Your task to perform on an android device: Open internet settings Image 0: 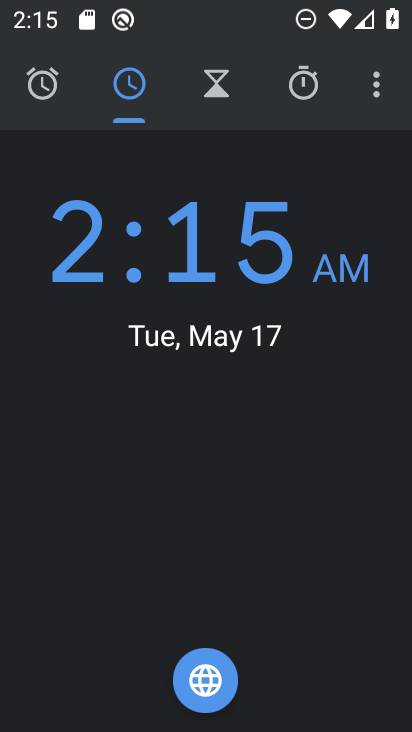
Step 0: press home button
Your task to perform on an android device: Open internet settings Image 1: 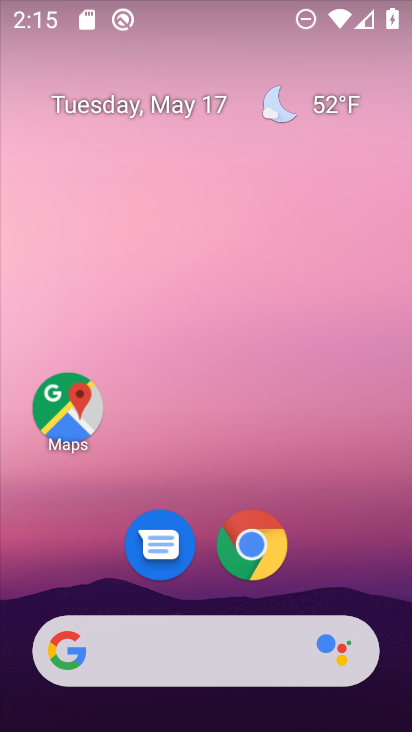
Step 1: drag from (348, 567) to (381, 156)
Your task to perform on an android device: Open internet settings Image 2: 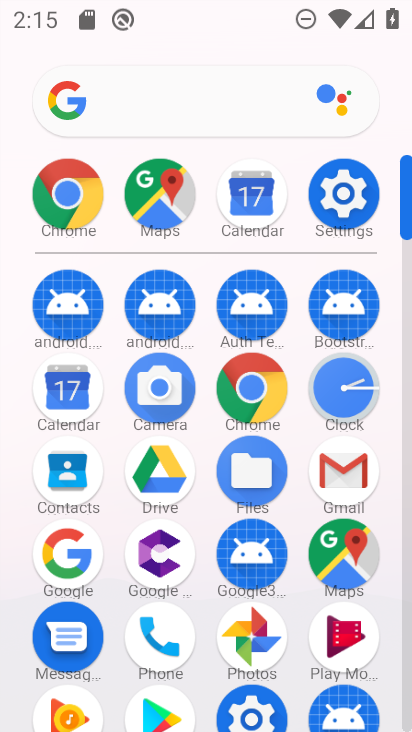
Step 2: click (331, 211)
Your task to perform on an android device: Open internet settings Image 3: 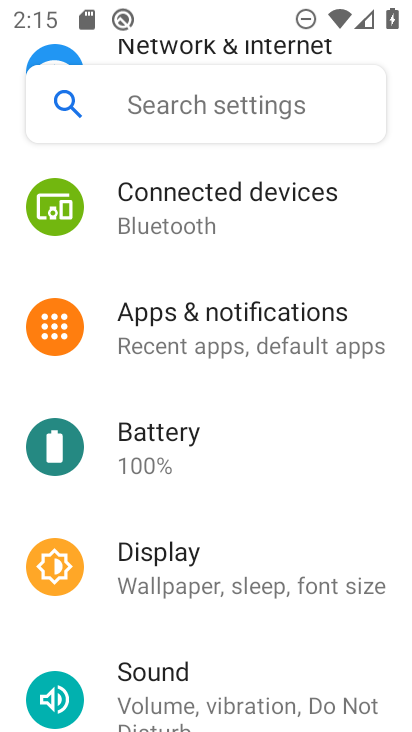
Step 3: drag from (281, 482) to (300, 397)
Your task to perform on an android device: Open internet settings Image 4: 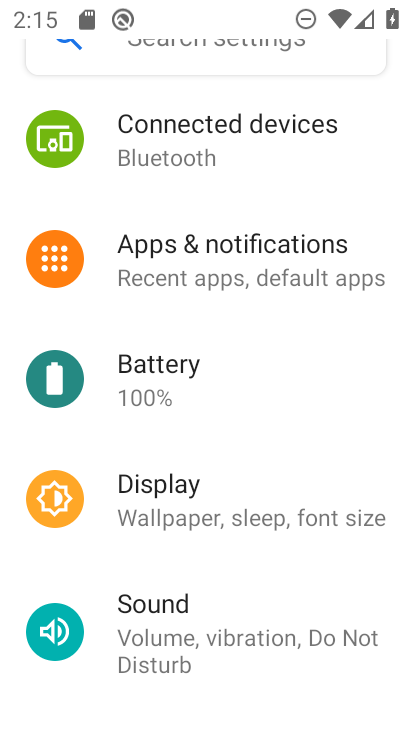
Step 4: drag from (321, 576) to (333, 470)
Your task to perform on an android device: Open internet settings Image 5: 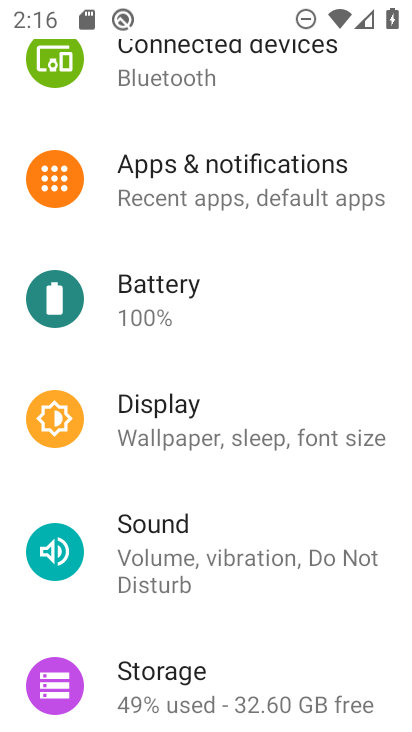
Step 5: drag from (314, 622) to (323, 574)
Your task to perform on an android device: Open internet settings Image 6: 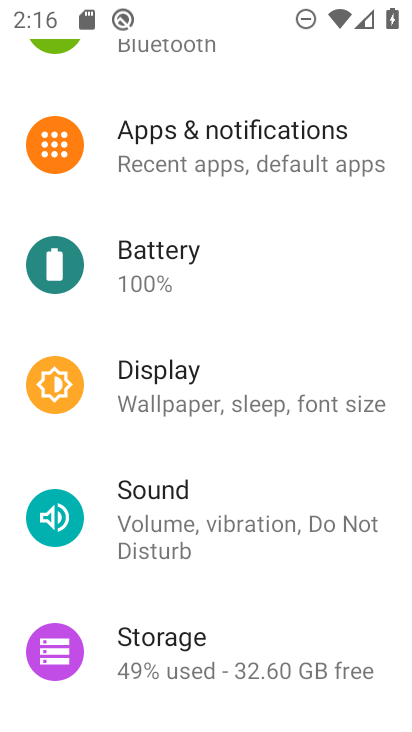
Step 6: drag from (322, 635) to (321, 535)
Your task to perform on an android device: Open internet settings Image 7: 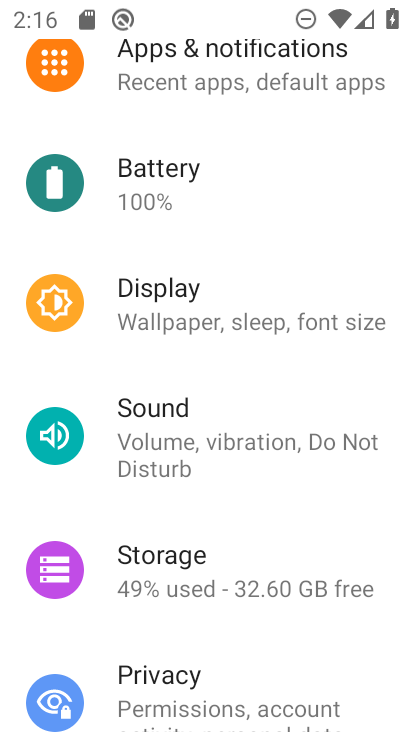
Step 7: drag from (304, 664) to (325, 552)
Your task to perform on an android device: Open internet settings Image 8: 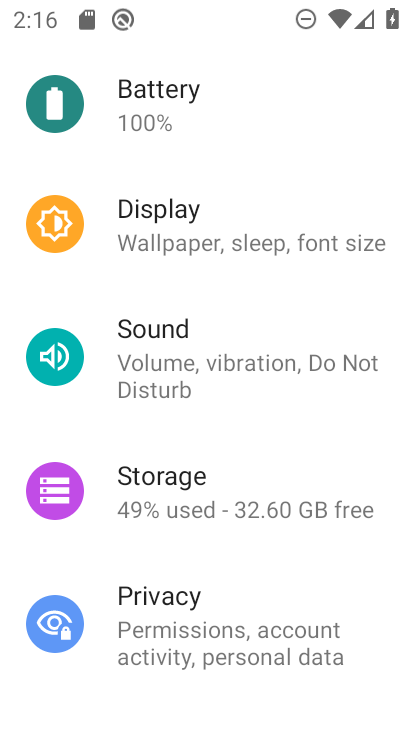
Step 8: drag from (326, 618) to (336, 546)
Your task to perform on an android device: Open internet settings Image 9: 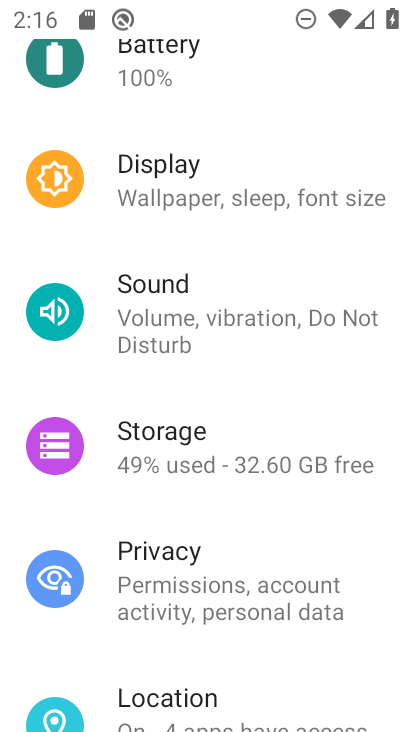
Step 9: click (353, 491)
Your task to perform on an android device: Open internet settings Image 10: 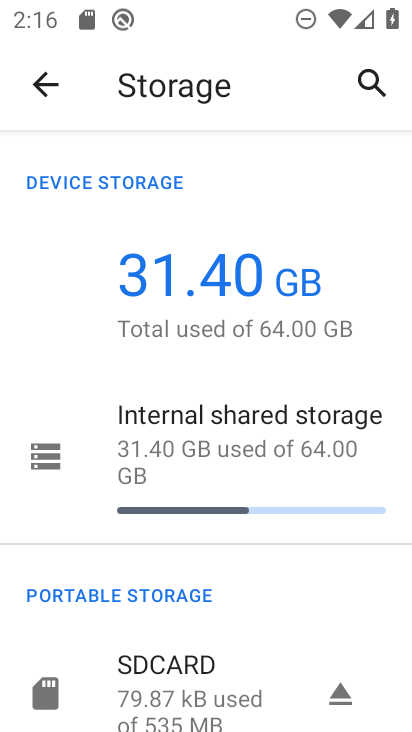
Step 10: drag from (369, 391) to (353, 544)
Your task to perform on an android device: Open internet settings Image 11: 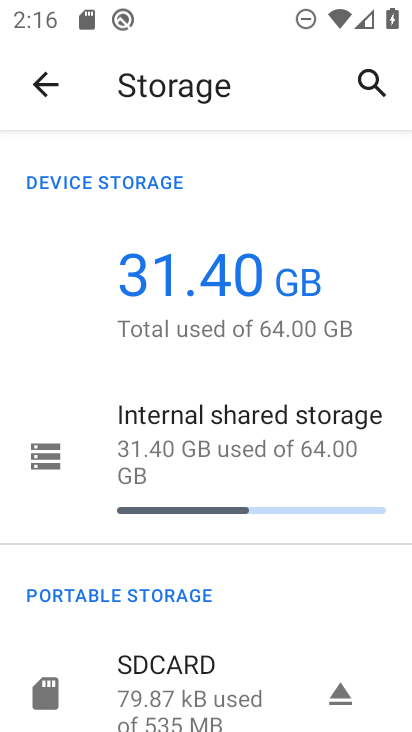
Step 11: click (60, 92)
Your task to perform on an android device: Open internet settings Image 12: 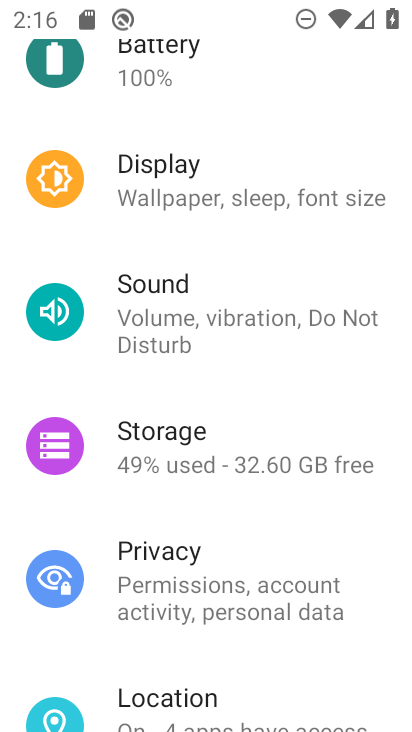
Step 12: drag from (298, 238) to (306, 391)
Your task to perform on an android device: Open internet settings Image 13: 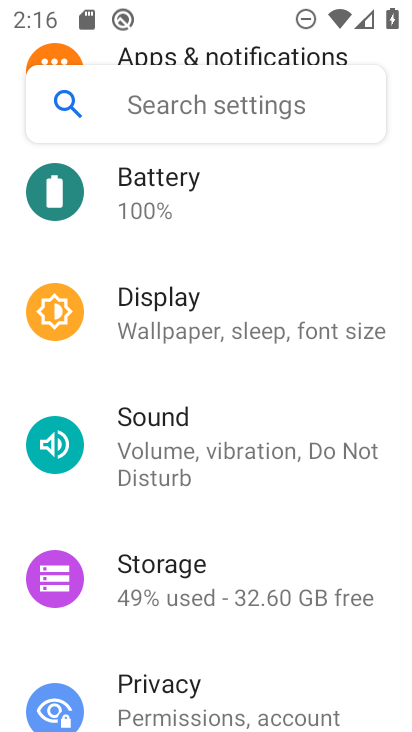
Step 13: drag from (295, 222) to (299, 321)
Your task to perform on an android device: Open internet settings Image 14: 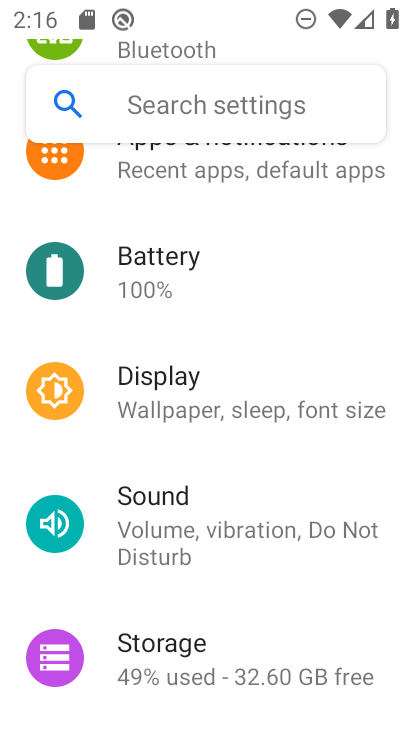
Step 14: drag from (315, 270) to (311, 394)
Your task to perform on an android device: Open internet settings Image 15: 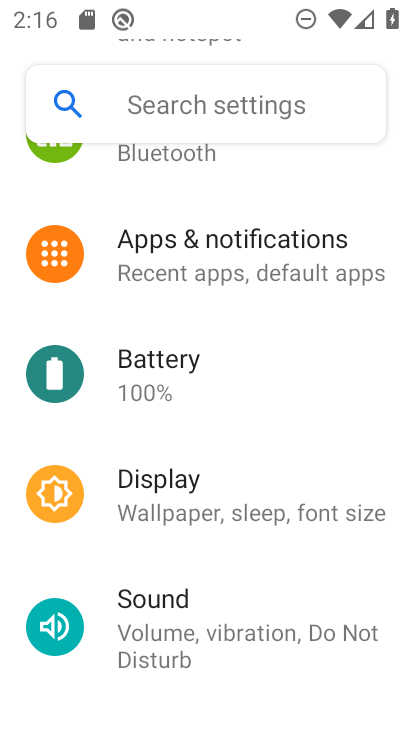
Step 15: drag from (308, 259) to (305, 374)
Your task to perform on an android device: Open internet settings Image 16: 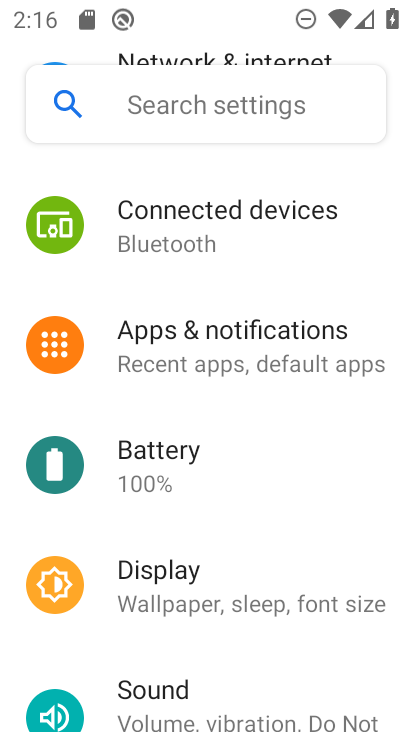
Step 16: drag from (317, 239) to (325, 377)
Your task to perform on an android device: Open internet settings Image 17: 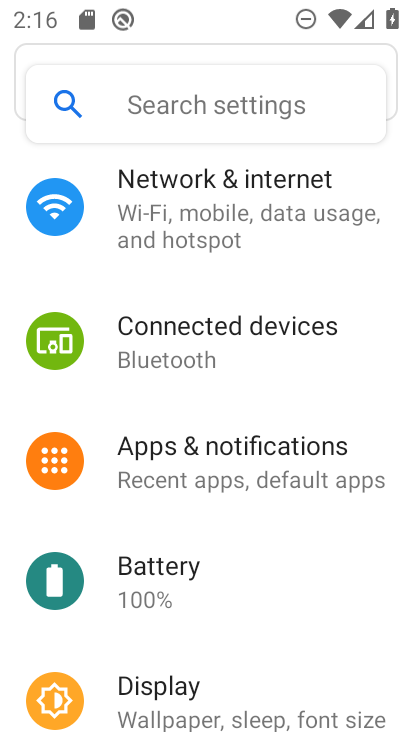
Step 17: click (287, 208)
Your task to perform on an android device: Open internet settings Image 18: 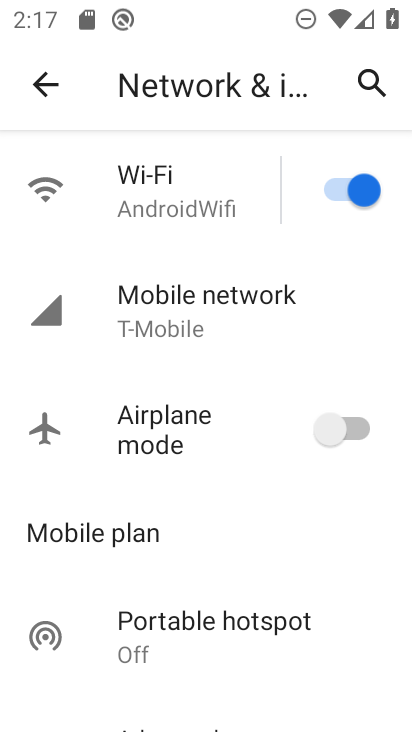
Step 18: task complete